Your task to perform on an android device: Open Amazon Image 0: 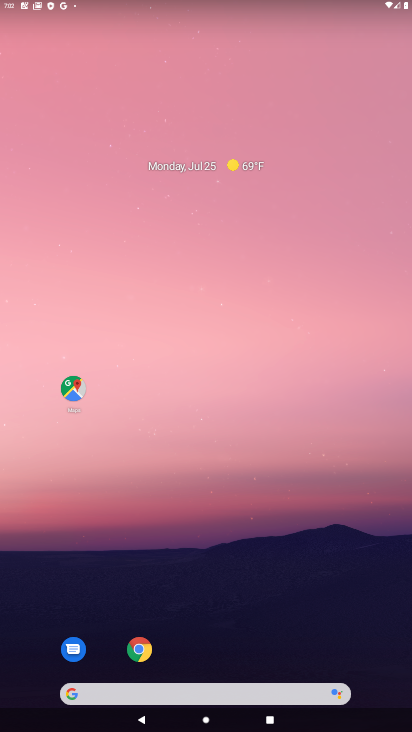
Step 0: drag from (184, 681) to (342, 77)
Your task to perform on an android device: Open Amazon Image 1: 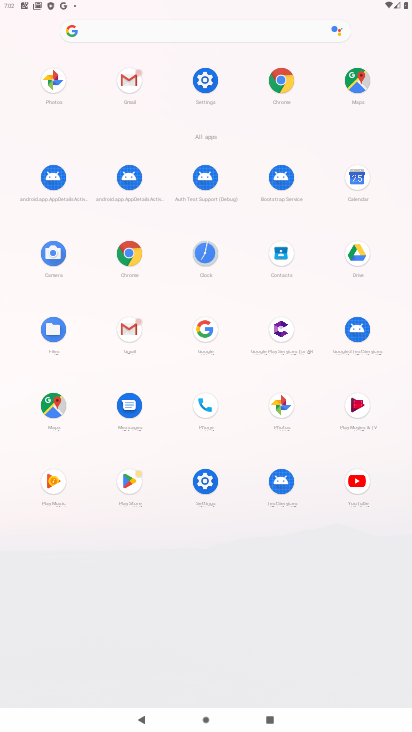
Step 1: click (283, 89)
Your task to perform on an android device: Open Amazon Image 2: 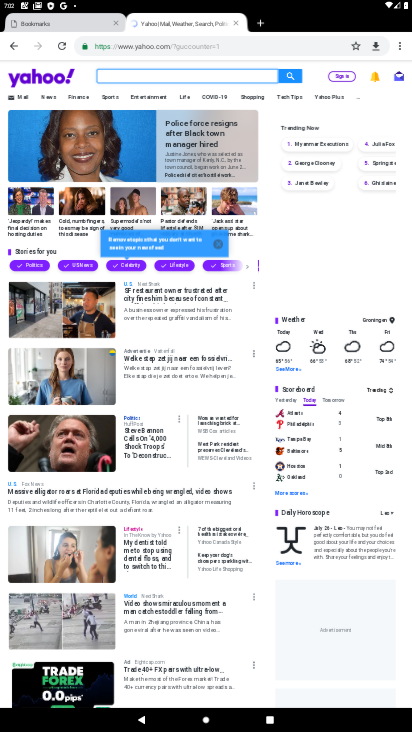
Step 2: click (16, 48)
Your task to perform on an android device: Open Amazon Image 3: 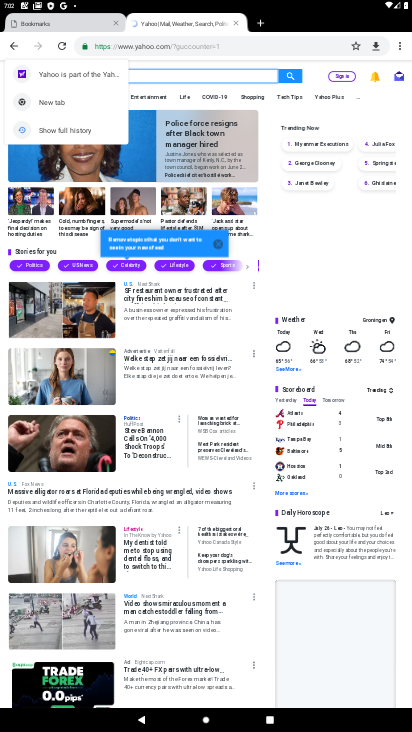
Step 3: click (9, 43)
Your task to perform on an android device: Open Amazon Image 4: 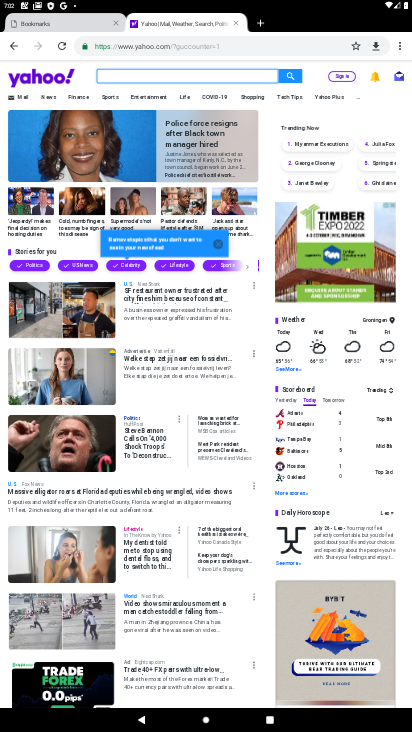
Step 4: click (9, 42)
Your task to perform on an android device: Open Amazon Image 5: 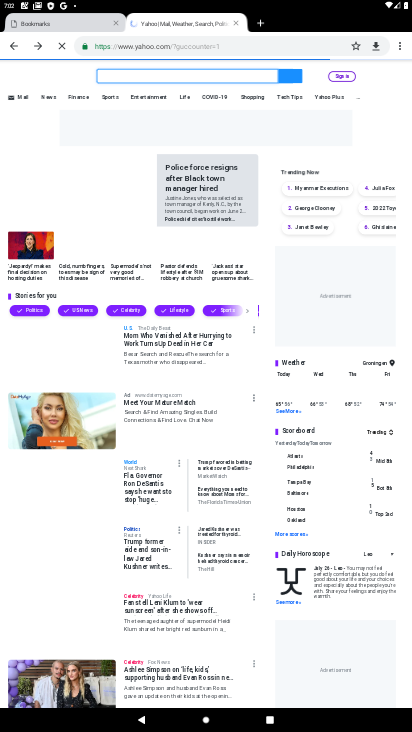
Step 5: click (9, 42)
Your task to perform on an android device: Open Amazon Image 6: 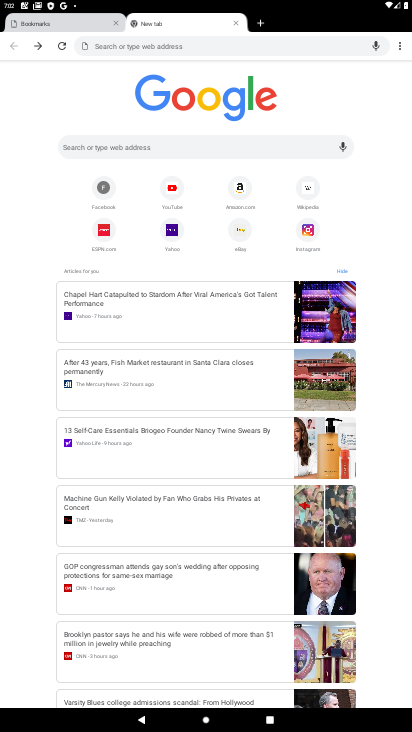
Step 6: click (226, 185)
Your task to perform on an android device: Open Amazon Image 7: 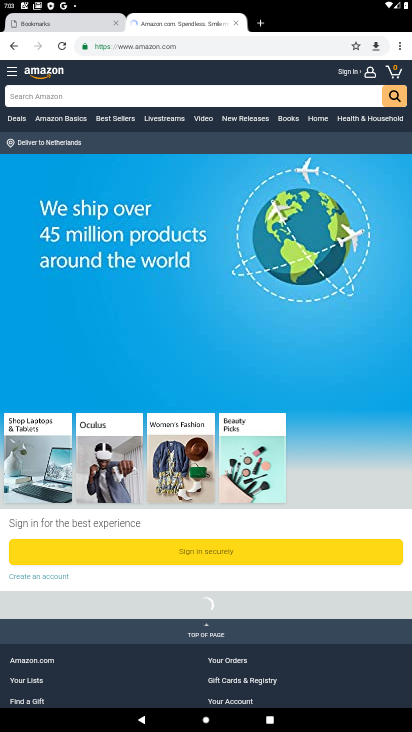
Step 7: task complete